Your task to perform on an android device: turn off sleep mode Image 0: 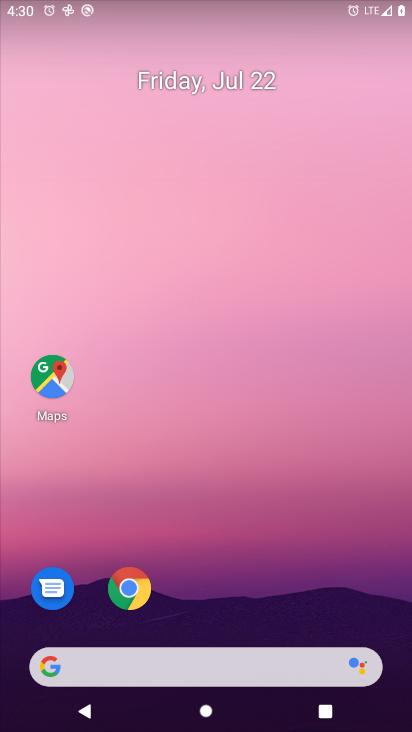
Step 0: drag from (279, 566) to (254, 30)
Your task to perform on an android device: turn off sleep mode Image 1: 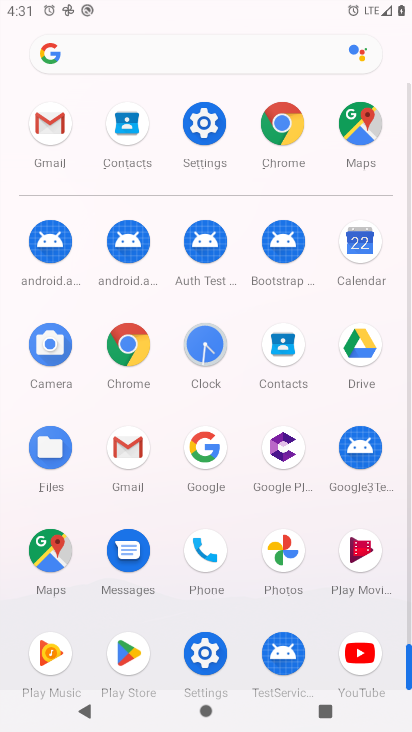
Step 1: click (208, 639)
Your task to perform on an android device: turn off sleep mode Image 2: 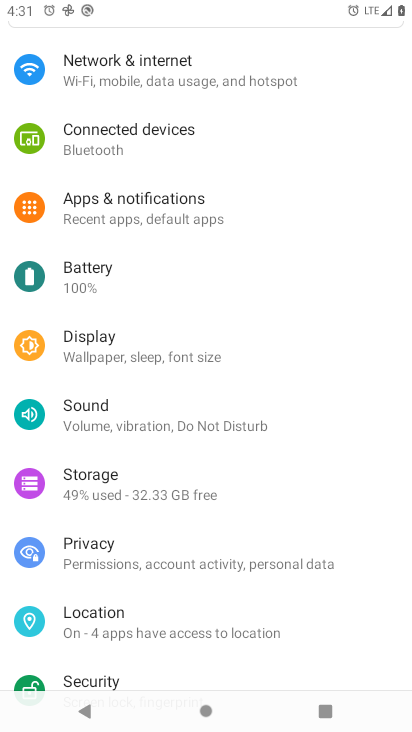
Step 2: click (88, 331)
Your task to perform on an android device: turn off sleep mode Image 3: 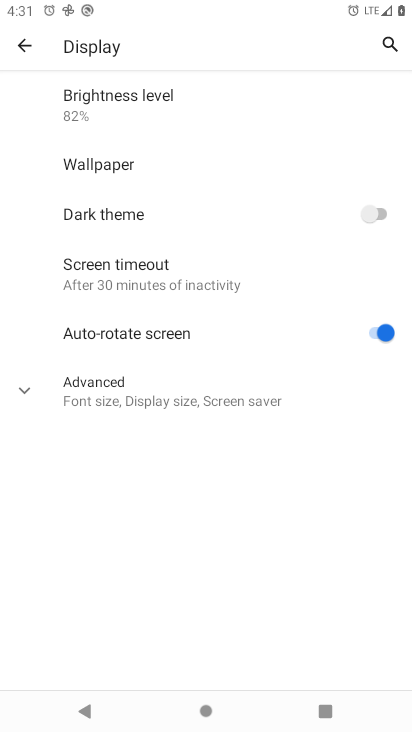
Step 3: task complete